Your task to perform on an android device: toggle location history Image 0: 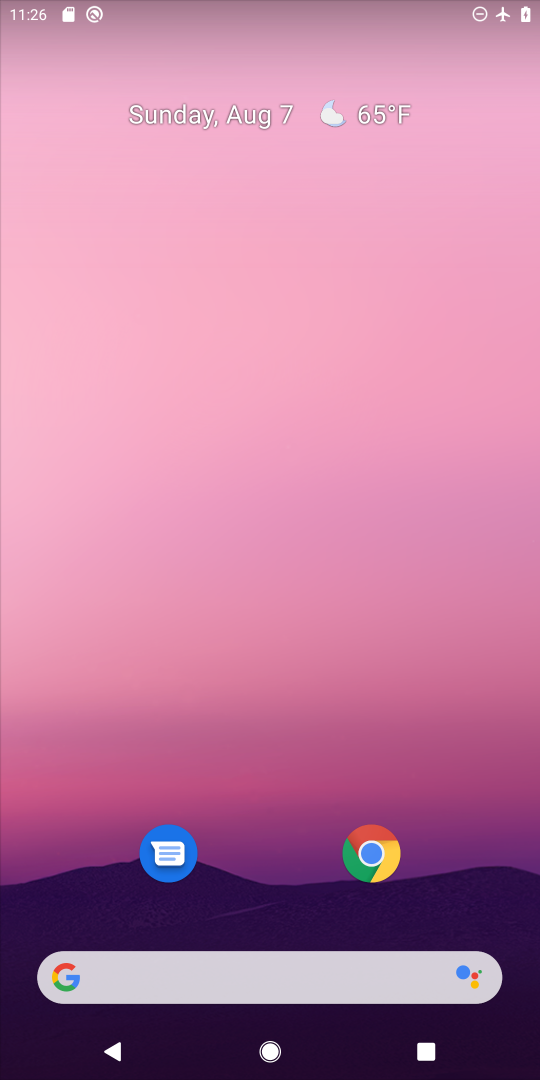
Step 0: drag from (213, 956) to (202, 126)
Your task to perform on an android device: toggle location history Image 1: 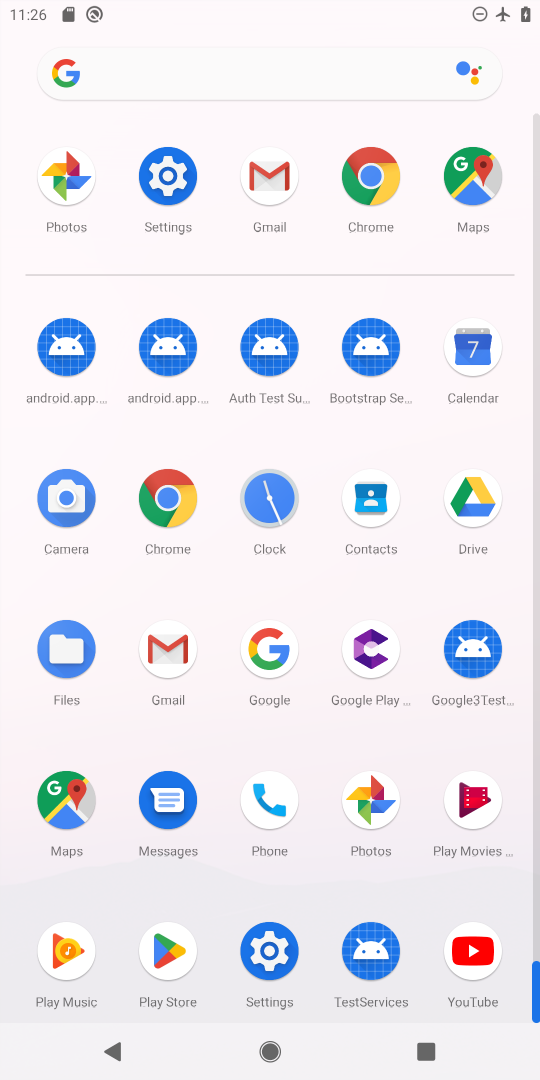
Step 1: click (165, 165)
Your task to perform on an android device: toggle location history Image 2: 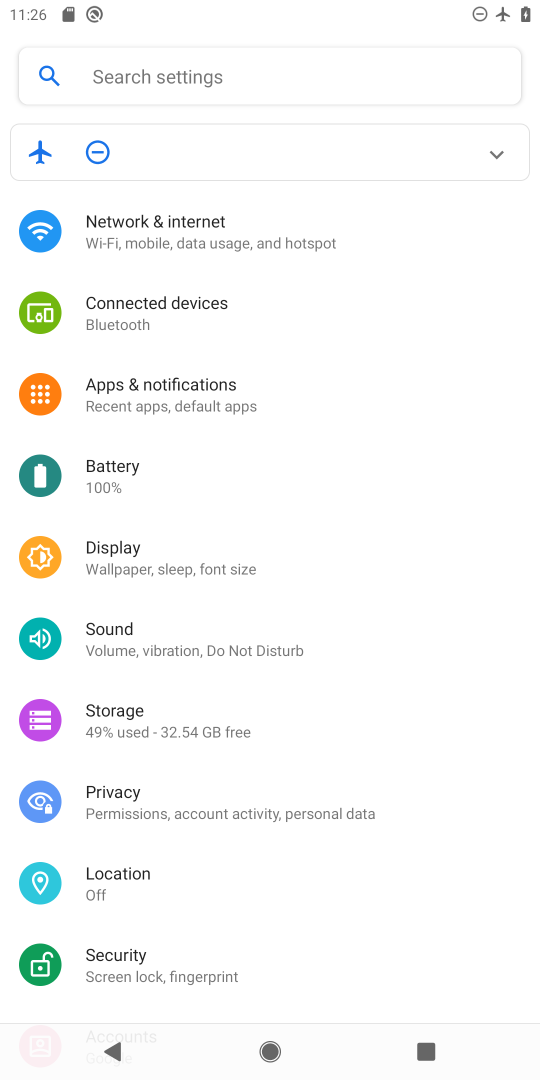
Step 2: click (154, 889)
Your task to perform on an android device: toggle location history Image 3: 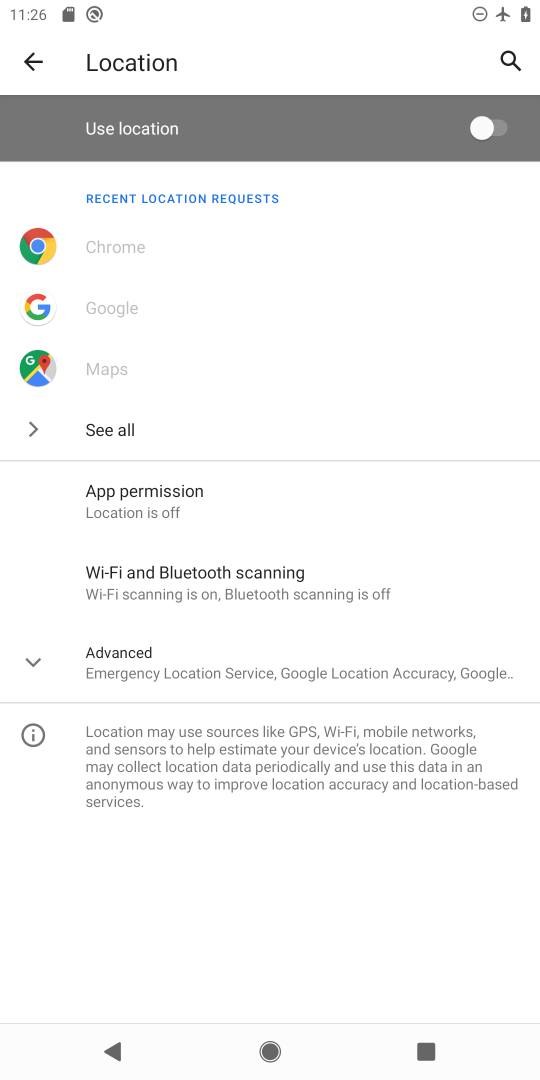
Step 3: click (203, 672)
Your task to perform on an android device: toggle location history Image 4: 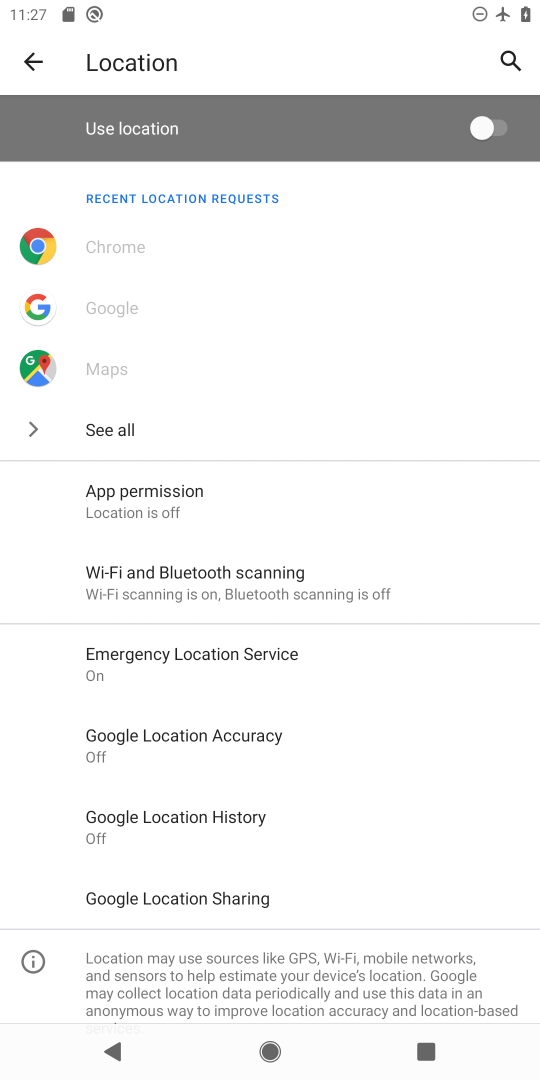
Step 4: click (227, 825)
Your task to perform on an android device: toggle location history Image 5: 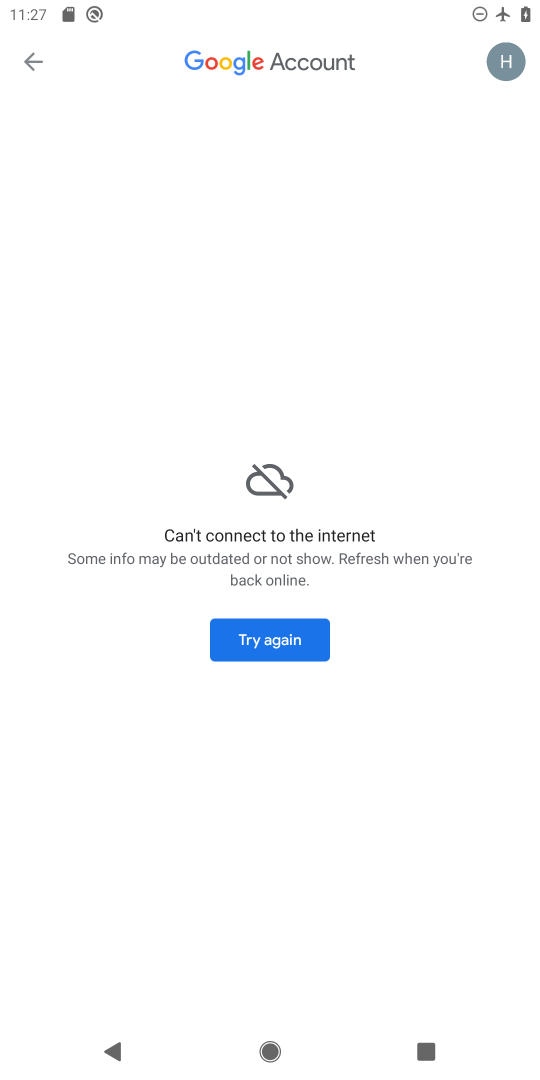
Step 5: click (257, 657)
Your task to perform on an android device: toggle location history Image 6: 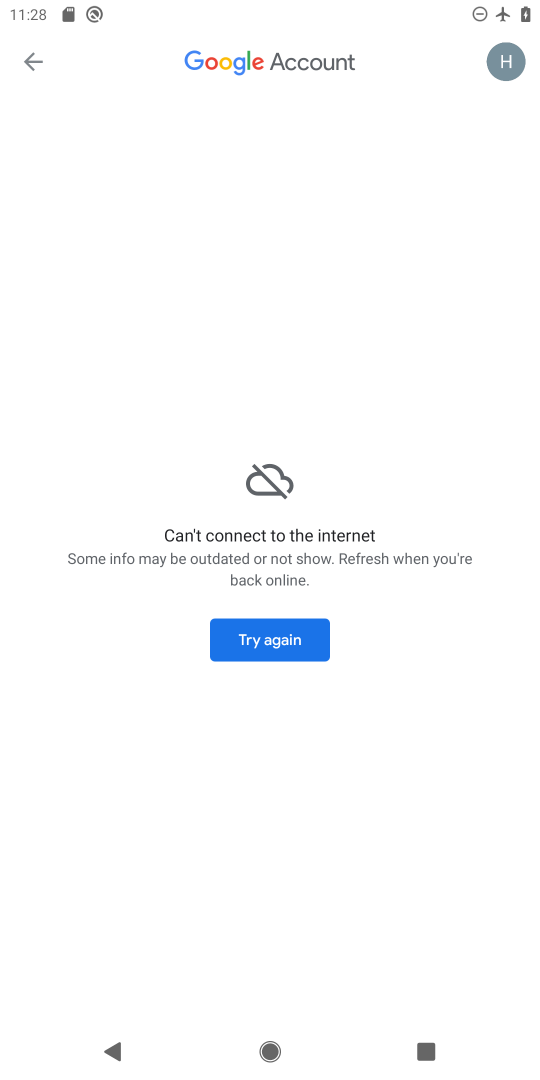
Step 6: task complete